Your task to perform on an android device: open sync settings in chrome Image 0: 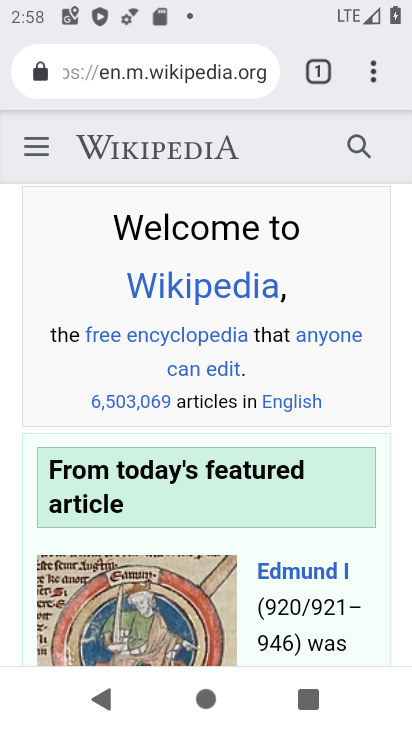
Step 0: press back button
Your task to perform on an android device: open sync settings in chrome Image 1: 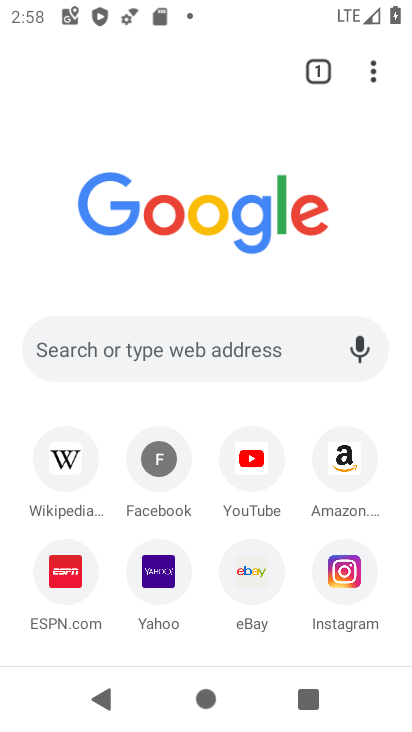
Step 1: press back button
Your task to perform on an android device: open sync settings in chrome Image 2: 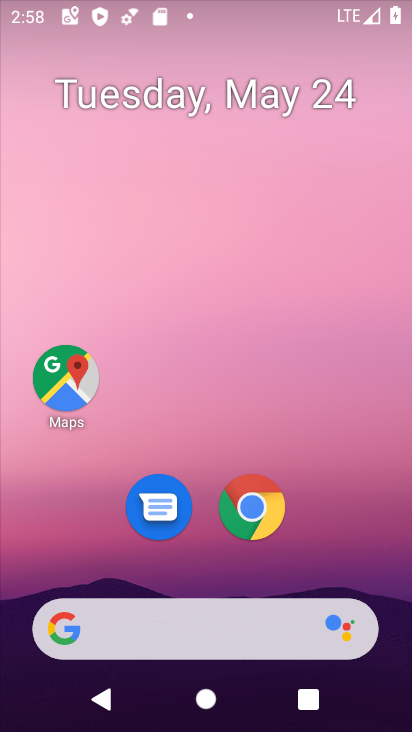
Step 2: click (250, 509)
Your task to perform on an android device: open sync settings in chrome Image 3: 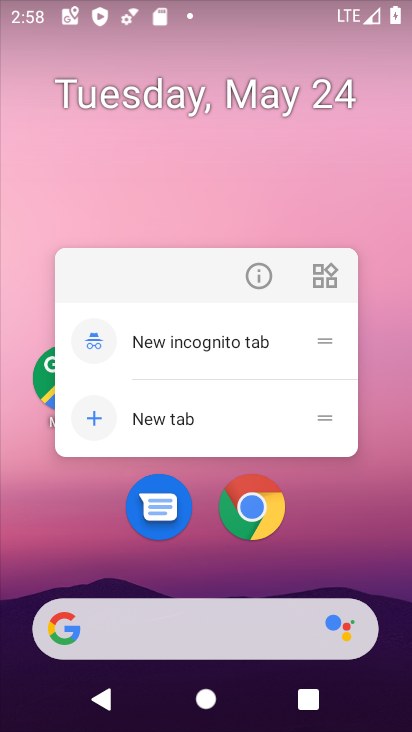
Step 3: click (254, 496)
Your task to perform on an android device: open sync settings in chrome Image 4: 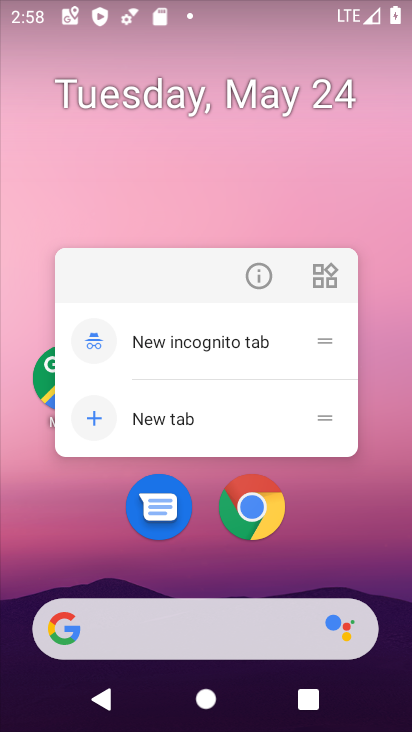
Step 4: click (261, 512)
Your task to perform on an android device: open sync settings in chrome Image 5: 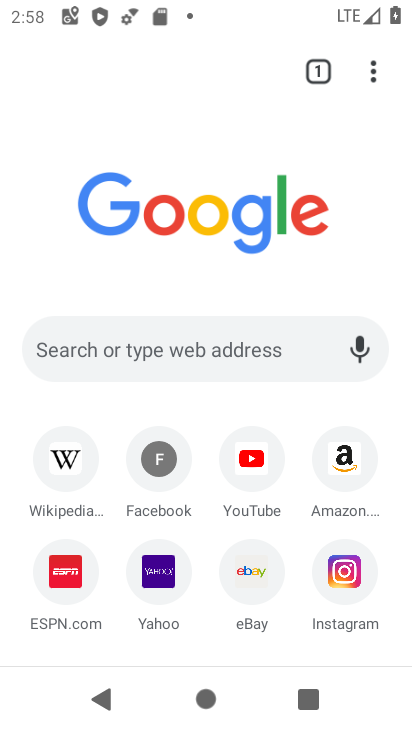
Step 5: drag from (369, 74) to (117, 491)
Your task to perform on an android device: open sync settings in chrome Image 6: 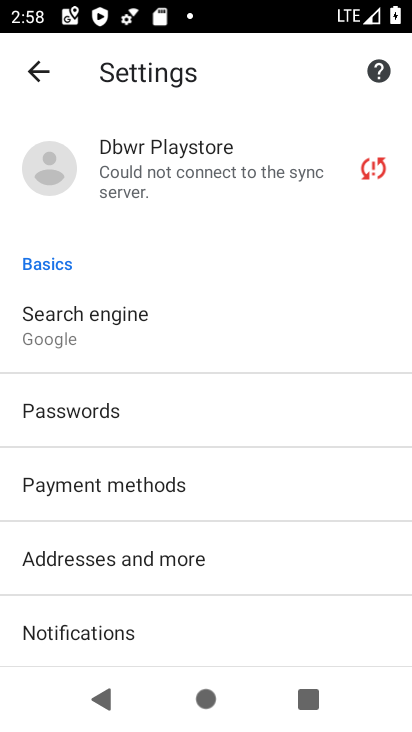
Step 6: click (176, 175)
Your task to perform on an android device: open sync settings in chrome Image 7: 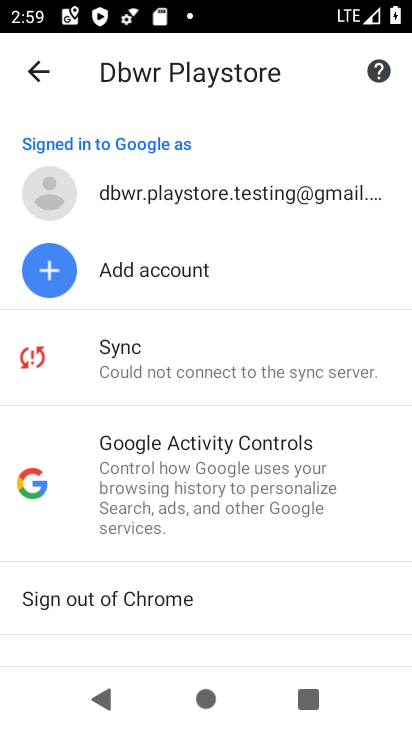
Step 7: task complete